Your task to perform on an android device: open sync settings in chrome Image 0: 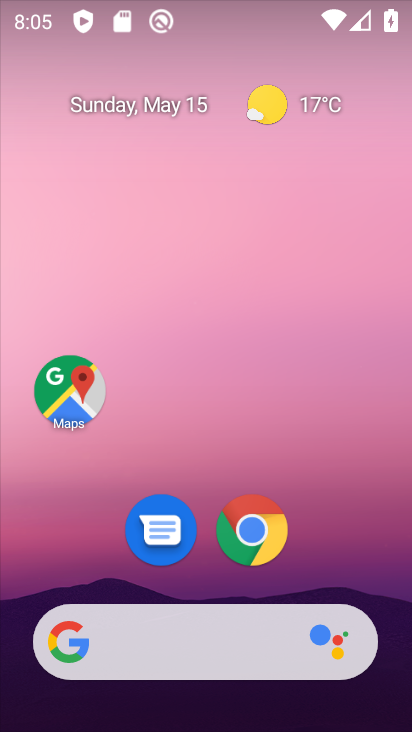
Step 0: click (246, 534)
Your task to perform on an android device: open sync settings in chrome Image 1: 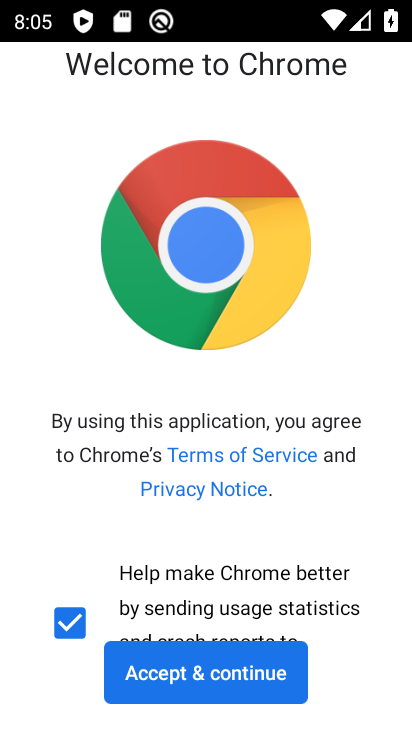
Step 1: click (210, 664)
Your task to perform on an android device: open sync settings in chrome Image 2: 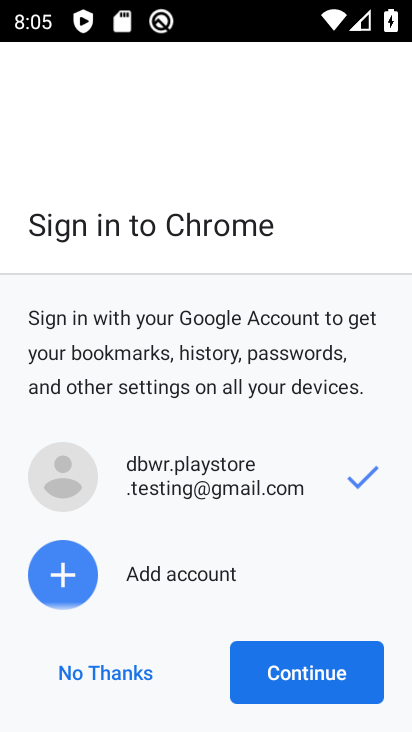
Step 2: click (297, 666)
Your task to perform on an android device: open sync settings in chrome Image 3: 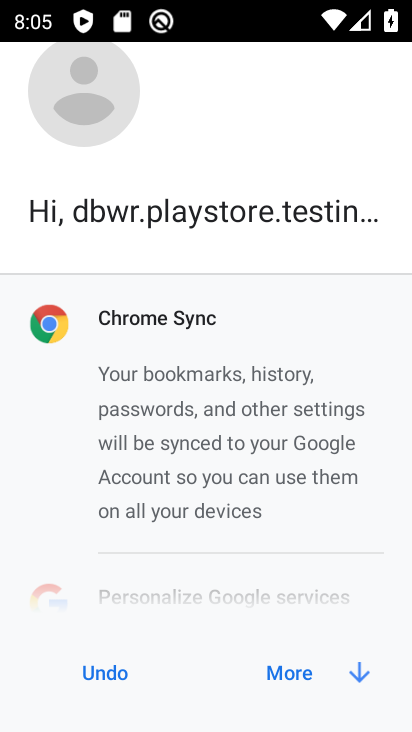
Step 3: click (297, 666)
Your task to perform on an android device: open sync settings in chrome Image 4: 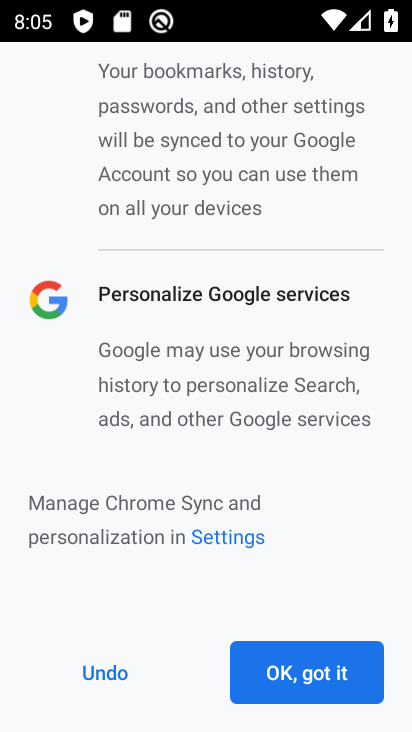
Step 4: click (312, 677)
Your task to perform on an android device: open sync settings in chrome Image 5: 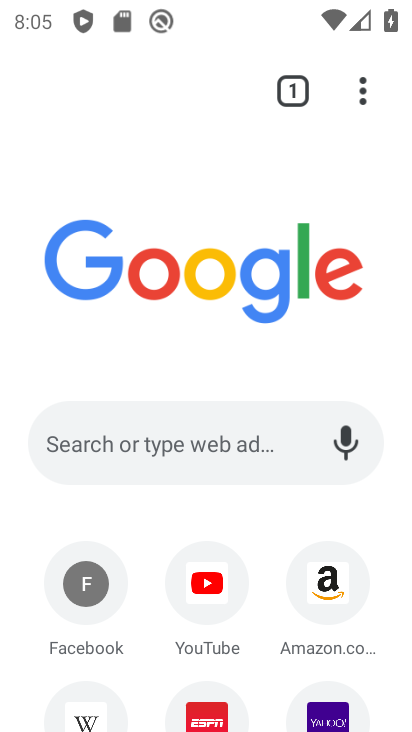
Step 5: click (364, 101)
Your task to perform on an android device: open sync settings in chrome Image 6: 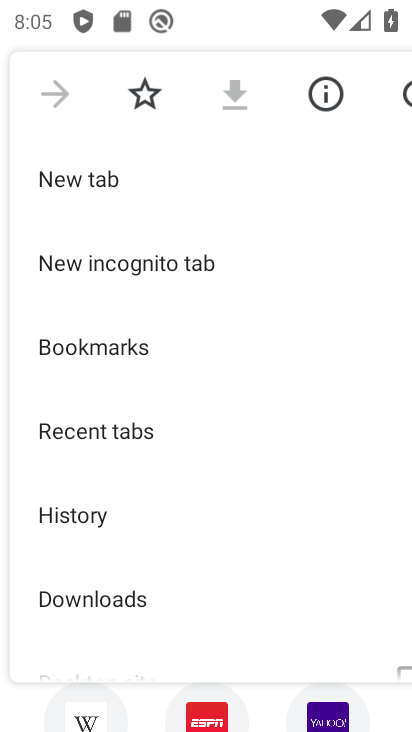
Step 6: drag from (182, 606) to (174, 153)
Your task to perform on an android device: open sync settings in chrome Image 7: 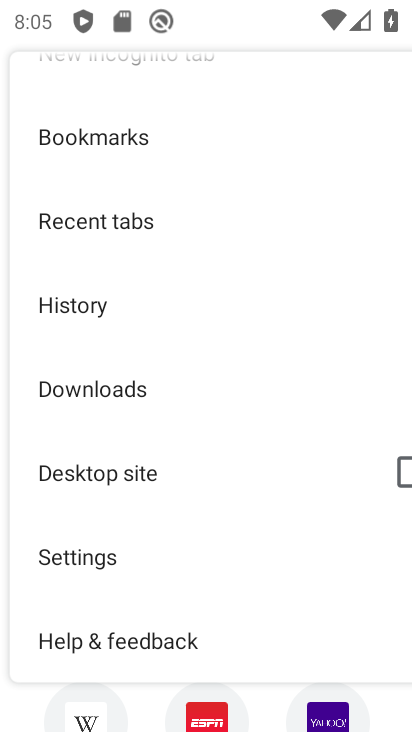
Step 7: click (79, 551)
Your task to perform on an android device: open sync settings in chrome Image 8: 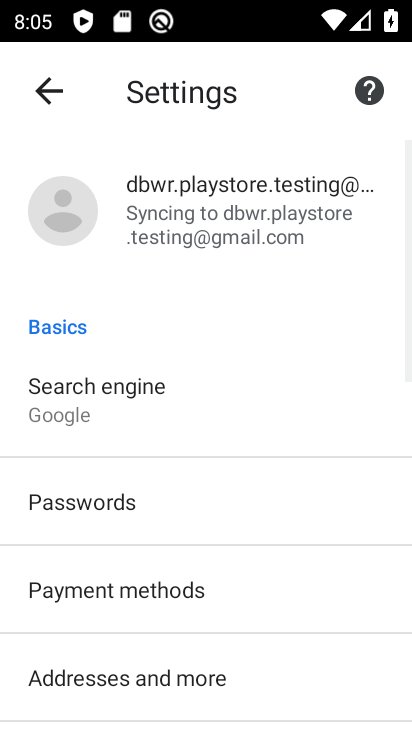
Step 8: drag from (240, 555) to (239, 268)
Your task to perform on an android device: open sync settings in chrome Image 9: 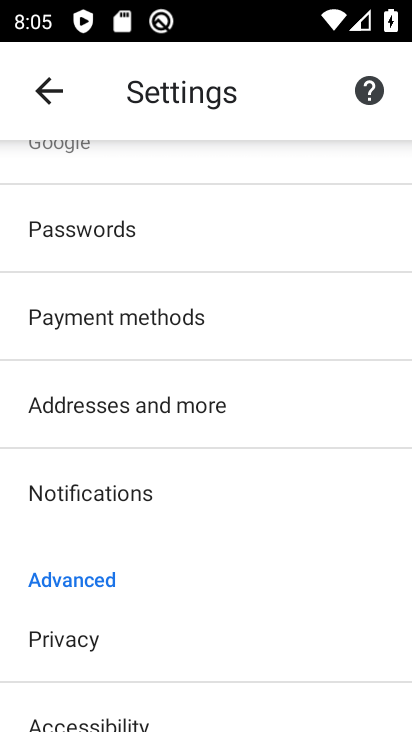
Step 9: drag from (214, 632) to (219, 262)
Your task to perform on an android device: open sync settings in chrome Image 10: 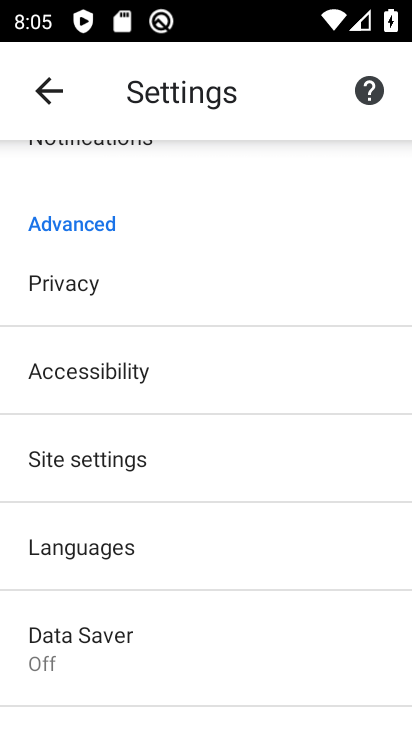
Step 10: click (74, 460)
Your task to perform on an android device: open sync settings in chrome Image 11: 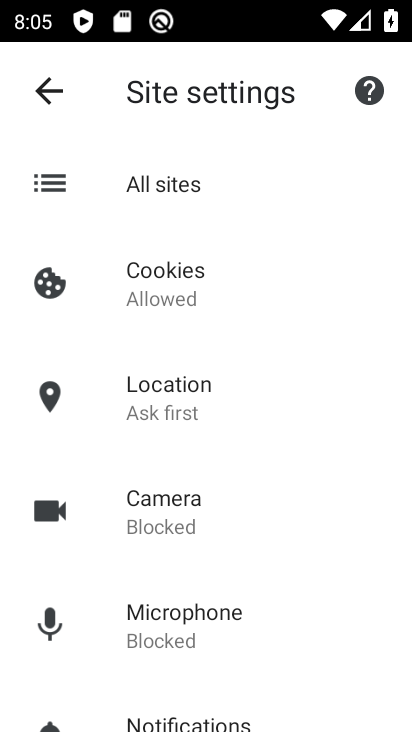
Step 11: drag from (227, 644) to (238, 207)
Your task to perform on an android device: open sync settings in chrome Image 12: 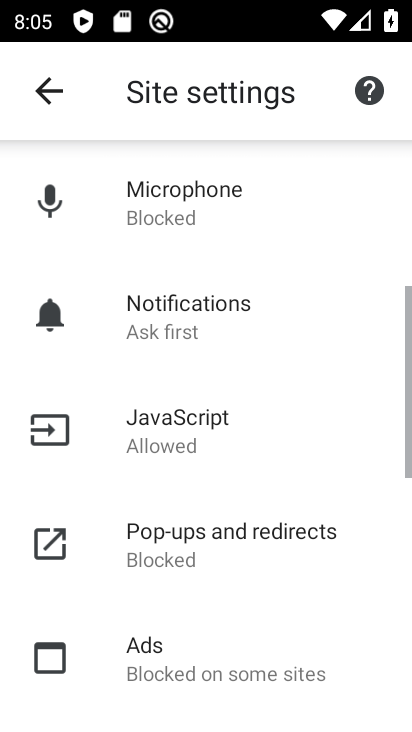
Step 12: drag from (247, 659) to (256, 309)
Your task to perform on an android device: open sync settings in chrome Image 13: 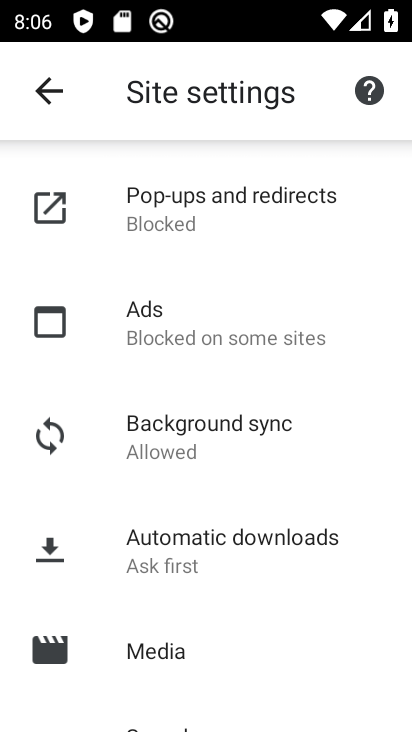
Step 13: click (201, 426)
Your task to perform on an android device: open sync settings in chrome Image 14: 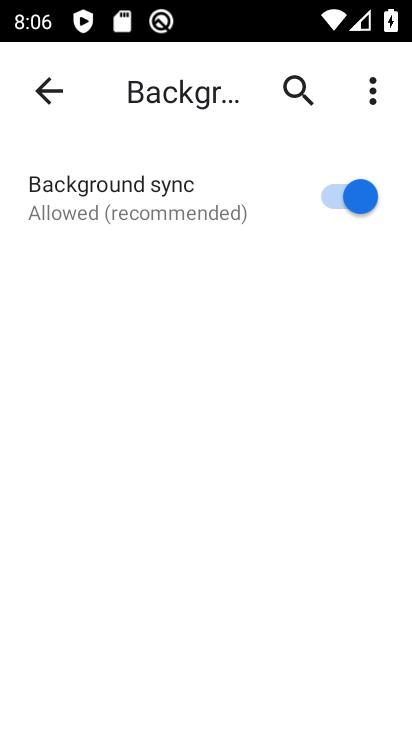
Step 14: task complete